Your task to perform on an android device: How much does a 3 bedroom apartment rent for in Dallas? Image 0: 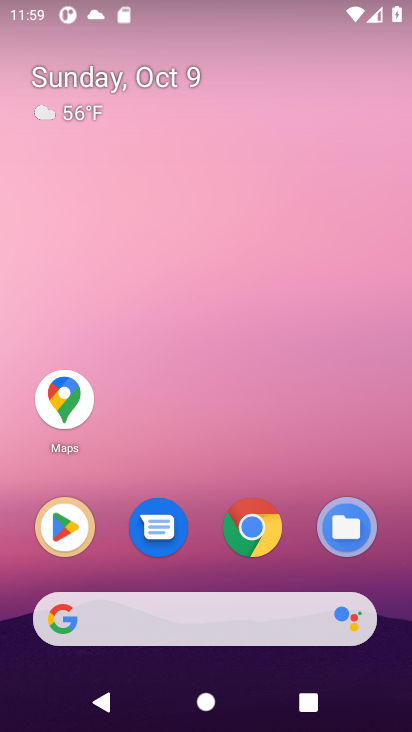
Step 0: click (261, 527)
Your task to perform on an android device: How much does a 3 bedroom apartment rent for in Dallas? Image 1: 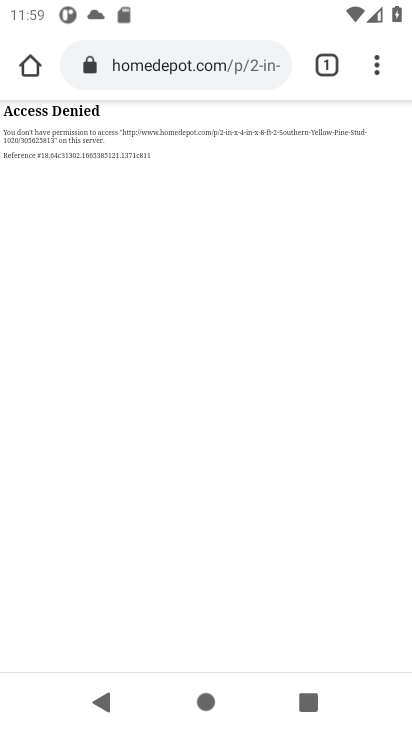
Step 1: click (166, 40)
Your task to perform on an android device: How much does a 3 bedroom apartment rent for in Dallas? Image 2: 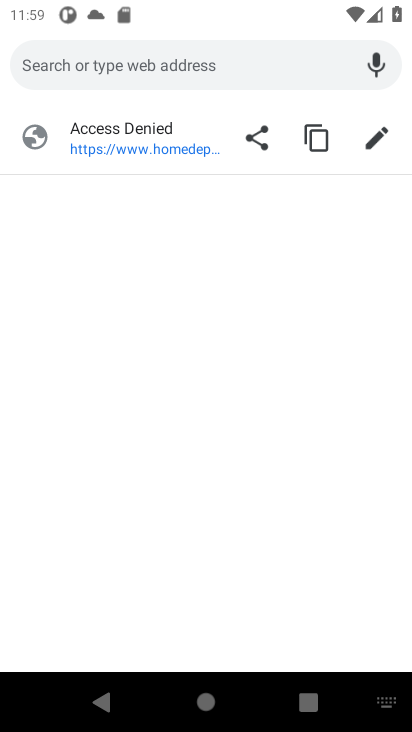
Step 2: click (240, 71)
Your task to perform on an android device: How much does a 3 bedroom apartment rent for in Dallas? Image 3: 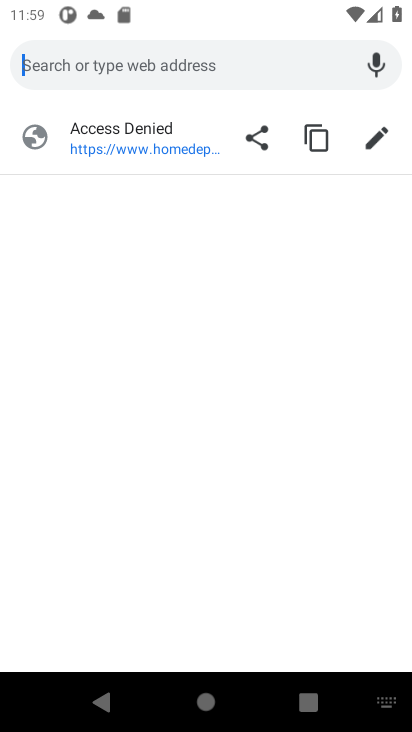
Step 3: type "How much does a 3 bedroom apartment rent for in Dallas?"
Your task to perform on an android device: How much does a 3 bedroom apartment rent for in Dallas? Image 4: 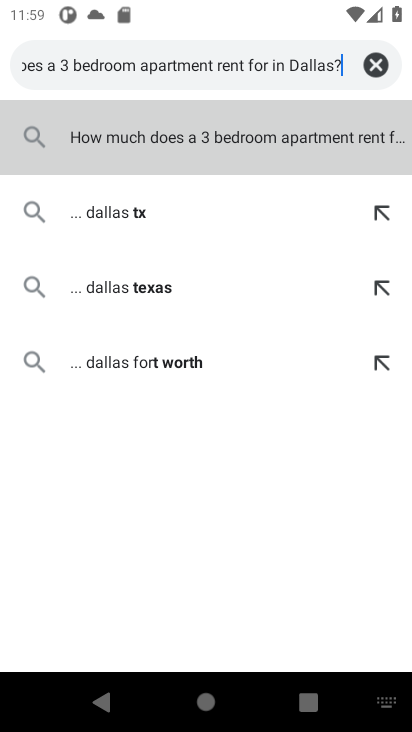
Step 4: click (107, 136)
Your task to perform on an android device: How much does a 3 bedroom apartment rent for in Dallas? Image 5: 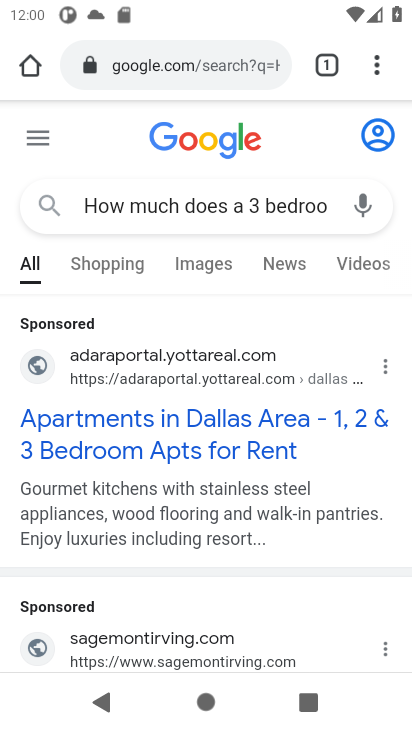
Step 5: drag from (133, 526) to (138, 299)
Your task to perform on an android device: How much does a 3 bedroom apartment rent for in Dallas? Image 6: 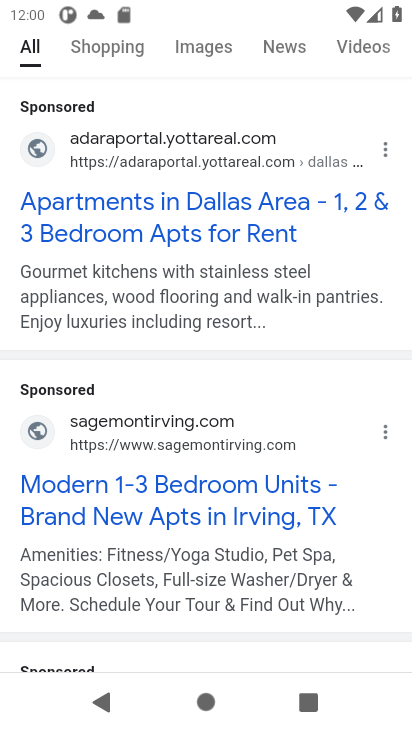
Step 6: drag from (129, 492) to (112, 203)
Your task to perform on an android device: How much does a 3 bedroom apartment rent for in Dallas? Image 7: 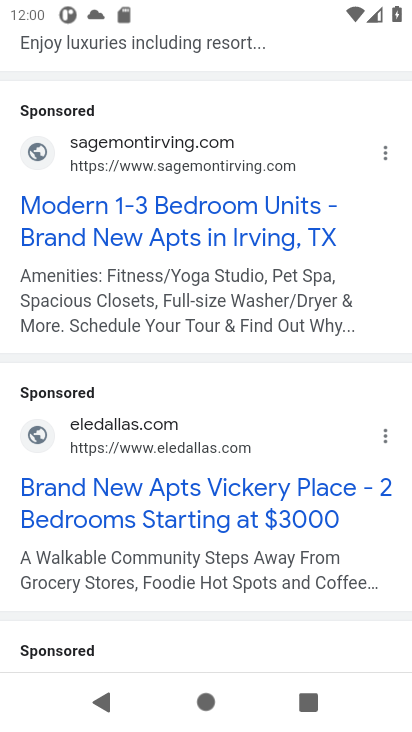
Step 7: click (83, 526)
Your task to perform on an android device: How much does a 3 bedroom apartment rent for in Dallas? Image 8: 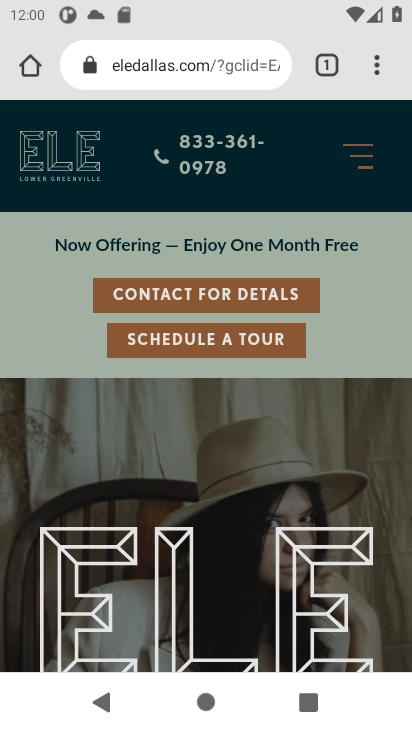
Step 8: drag from (213, 482) to (220, 216)
Your task to perform on an android device: How much does a 3 bedroom apartment rent for in Dallas? Image 9: 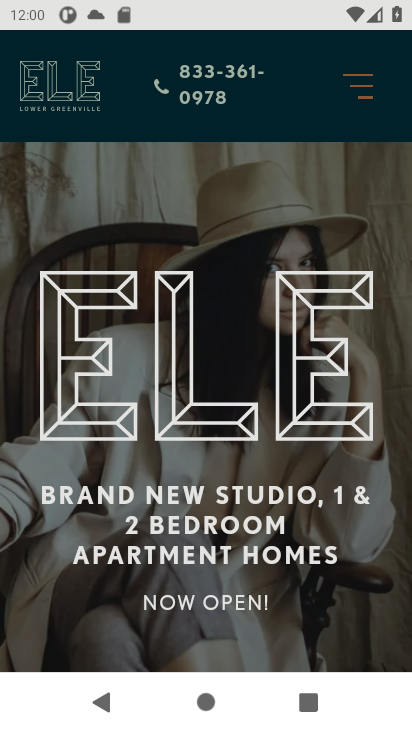
Step 9: drag from (250, 526) to (224, 215)
Your task to perform on an android device: How much does a 3 bedroom apartment rent for in Dallas? Image 10: 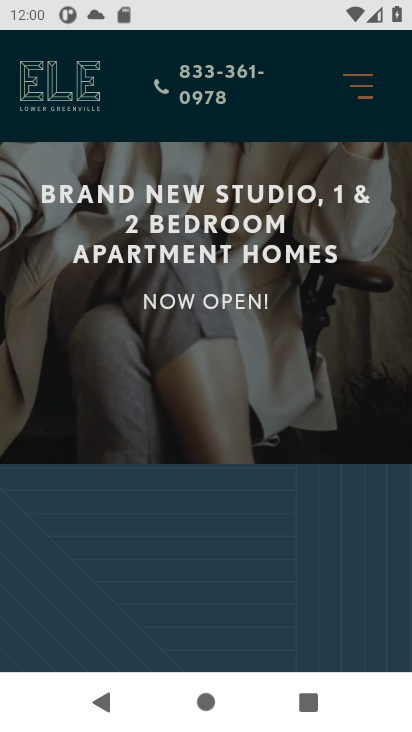
Step 10: drag from (205, 530) to (192, 264)
Your task to perform on an android device: How much does a 3 bedroom apartment rent for in Dallas? Image 11: 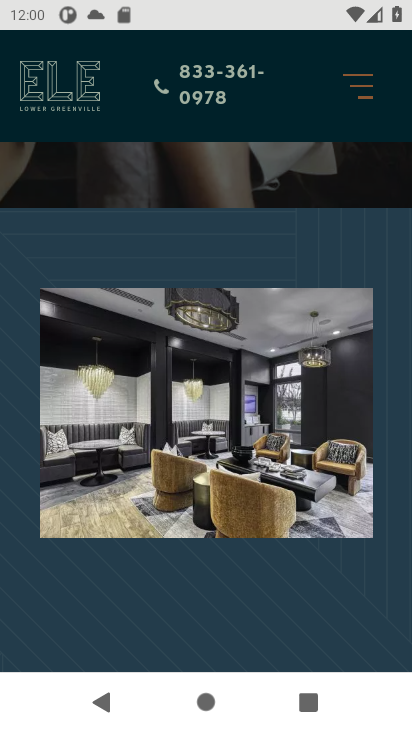
Step 11: drag from (188, 456) to (188, 203)
Your task to perform on an android device: How much does a 3 bedroom apartment rent for in Dallas? Image 12: 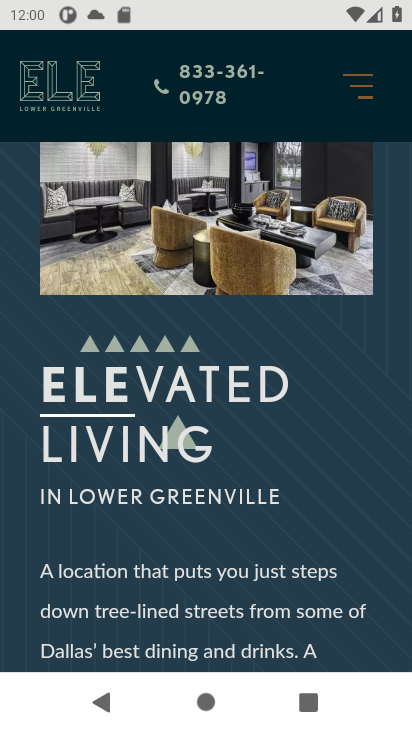
Step 12: drag from (238, 530) to (254, 270)
Your task to perform on an android device: How much does a 3 bedroom apartment rent for in Dallas? Image 13: 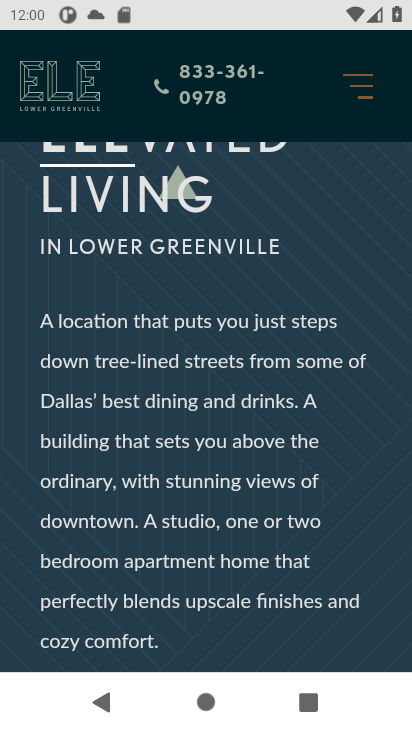
Step 13: press back button
Your task to perform on an android device: How much does a 3 bedroom apartment rent for in Dallas? Image 14: 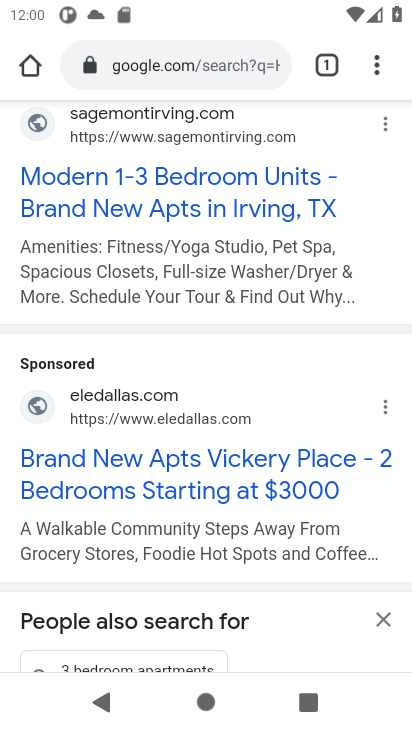
Step 14: drag from (194, 359) to (192, 567)
Your task to perform on an android device: How much does a 3 bedroom apartment rent for in Dallas? Image 15: 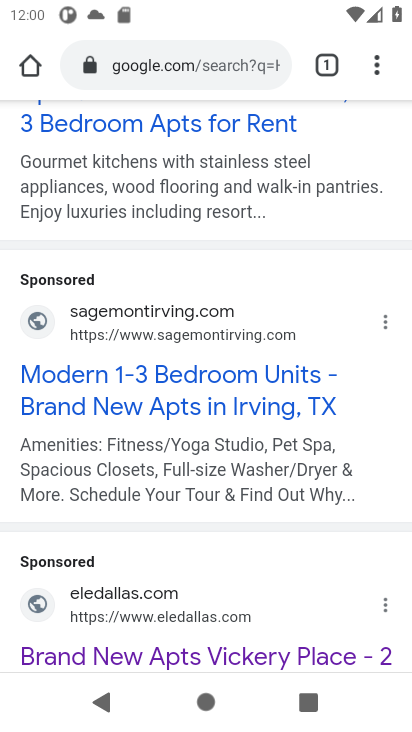
Step 15: click (156, 392)
Your task to perform on an android device: How much does a 3 bedroom apartment rent for in Dallas? Image 16: 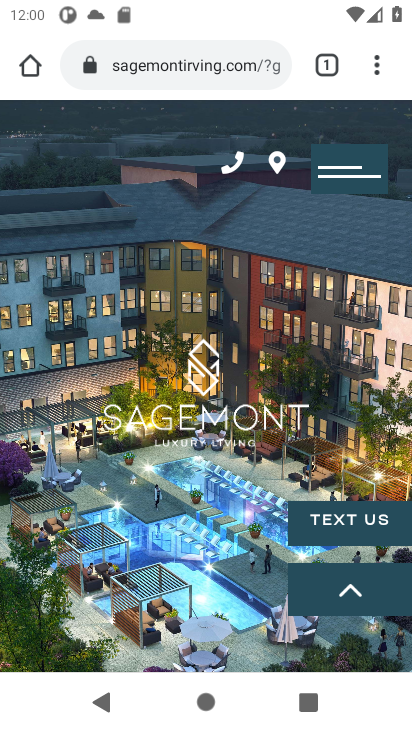
Step 16: drag from (178, 502) to (176, 288)
Your task to perform on an android device: How much does a 3 bedroom apartment rent for in Dallas? Image 17: 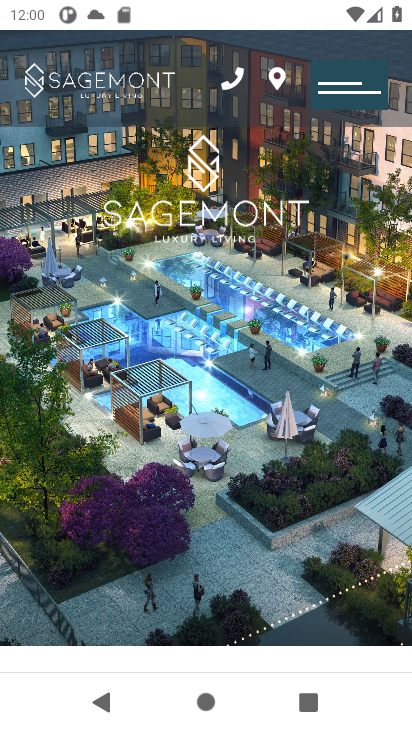
Step 17: drag from (247, 542) to (255, 225)
Your task to perform on an android device: How much does a 3 bedroom apartment rent for in Dallas? Image 18: 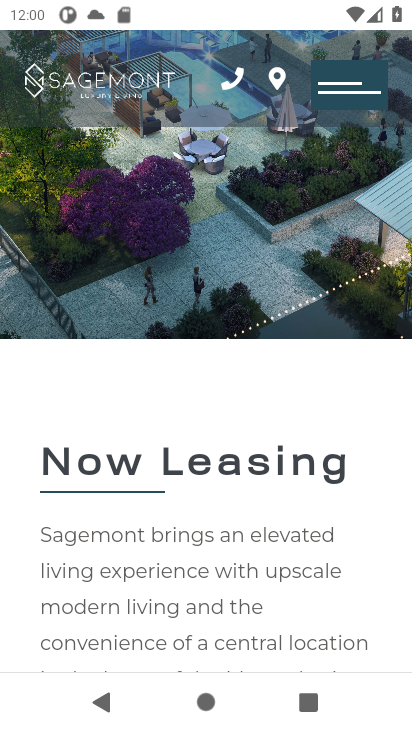
Step 18: drag from (281, 481) to (273, 176)
Your task to perform on an android device: How much does a 3 bedroom apartment rent for in Dallas? Image 19: 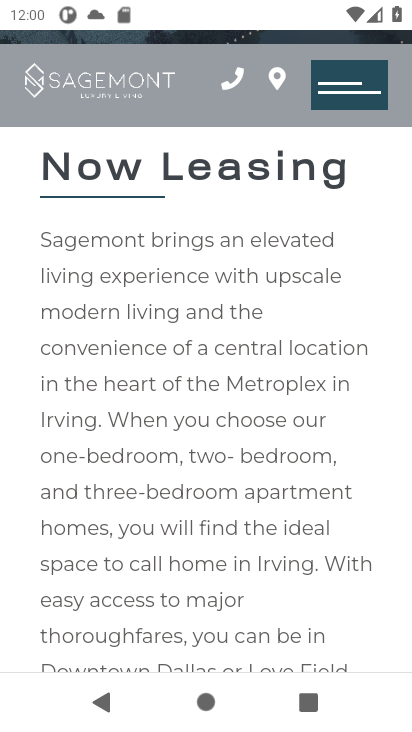
Step 19: press back button
Your task to perform on an android device: How much does a 3 bedroom apartment rent for in Dallas? Image 20: 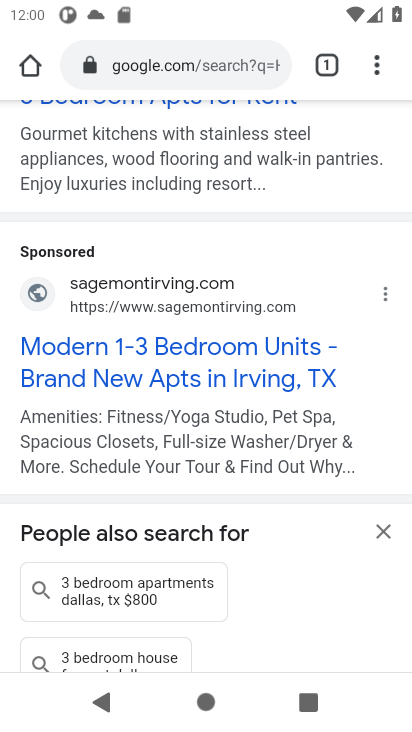
Step 20: drag from (198, 274) to (188, 527)
Your task to perform on an android device: How much does a 3 bedroom apartment rent for in Dallas? Image 21: 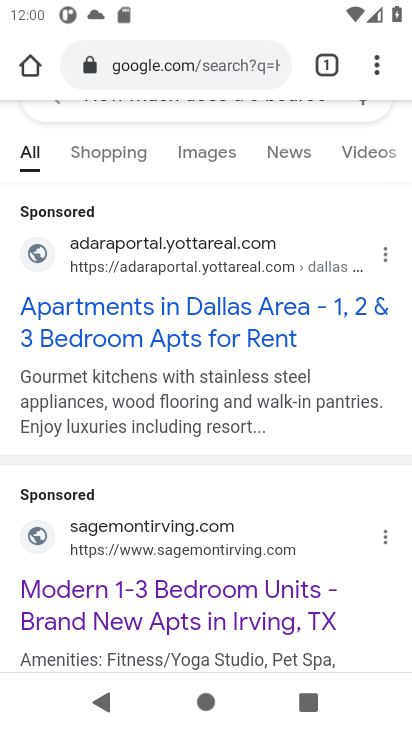
Step 21: click (151, 352)
Your task to perform on an android device: How much does a 3 bedroom apartment rent for in Dallas? Image 22: 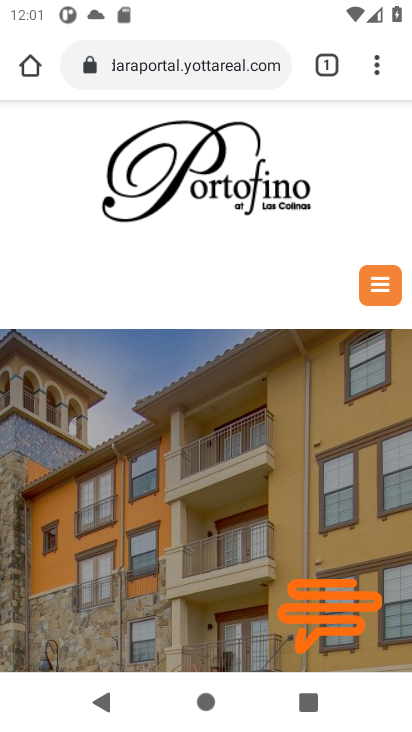
Step 22: drag from (169, 478) to (178, 172)
Your task to perform on an android device: How much does a 3 bedroom apartment rent for in Dallas? Image 23: 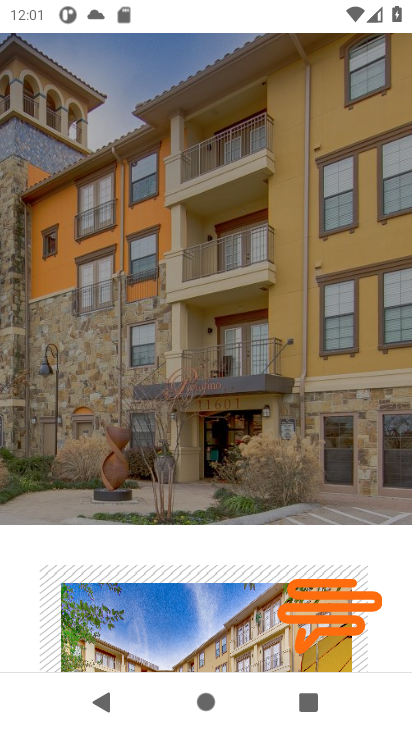
Step 23: drag from (185, 474) to (190, 163)
Your task to perform on an android device: How much does a 3 bedroom apartment rent for in Dallas? Image 24: 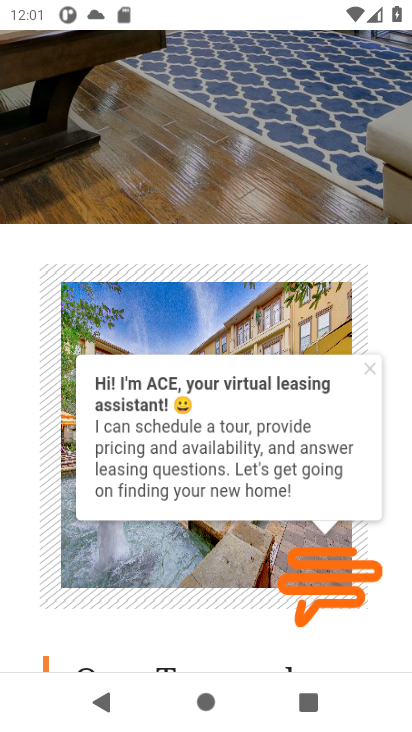
Step 24: drag from (14, 509) to (95, 219)
Your task to perform on an android device: How much does a 3 bedroom apartment rent for in Dallas? Image 25: 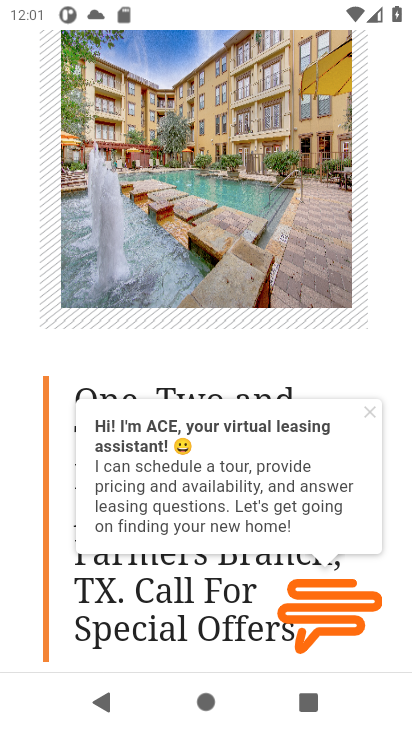
Step 25: click (375, 403)
Your task to perform on an android device: How much does a 3 bedroom apartment rent for in Dallas? Image 26: 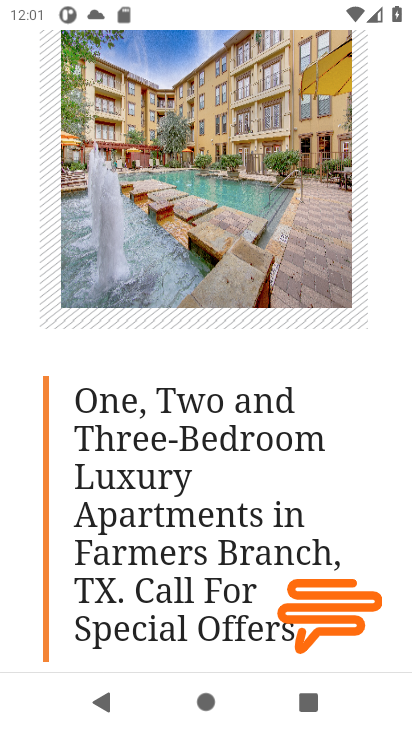
Step 26: drag from (211, 458) to (248, 70)
Your task to perform on an android device: How much does a 3 bedroom apartment rent for in Dallas? Image 27: 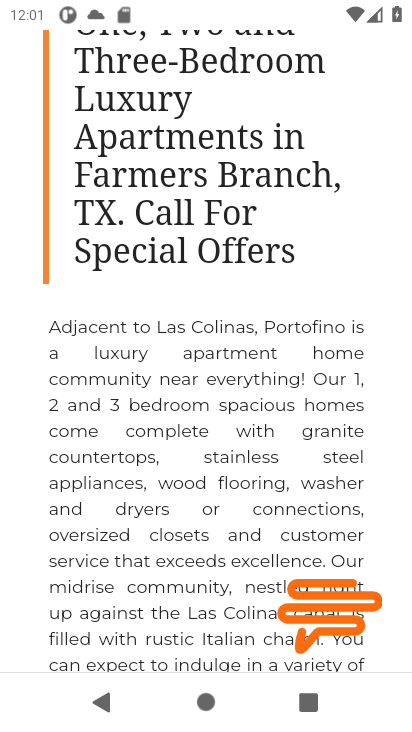
Step 27: drag from (184, 504) to (205, 124)
Your task to perform on an android device: How much does a 3 bedroom apartment rent for in Dallas? Image 28: 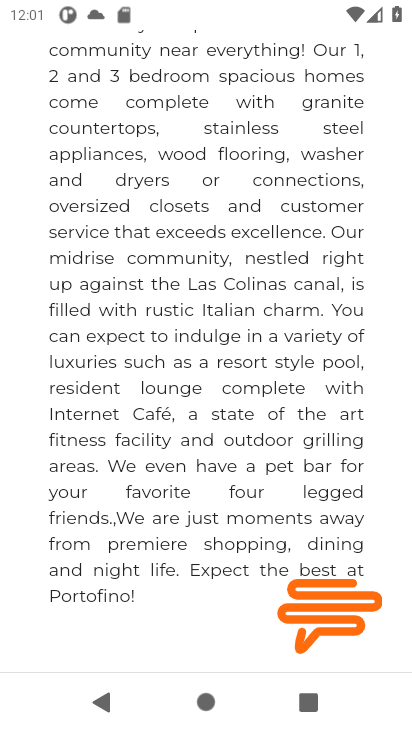
Step 28: drag from (163, 513) to (193, 217)
Your task to perform on an android device: How much does a 3 bedroom apartment rent for in Dallas? Image 29: 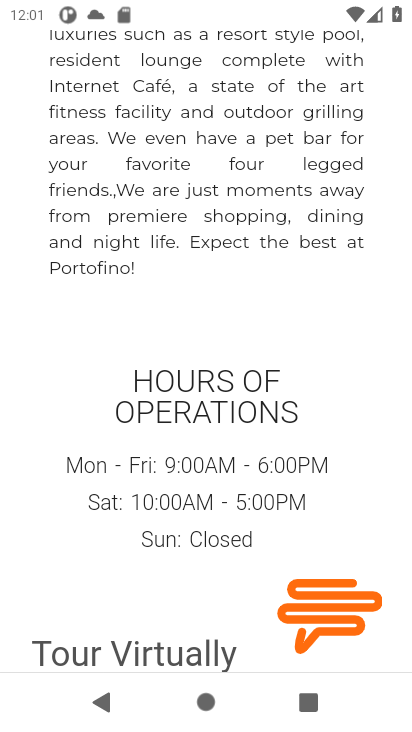
Step 29: press back button
Your task to perform on an android device: How much does a 3 bedroom apartment rent for in Dallas? Image 30: 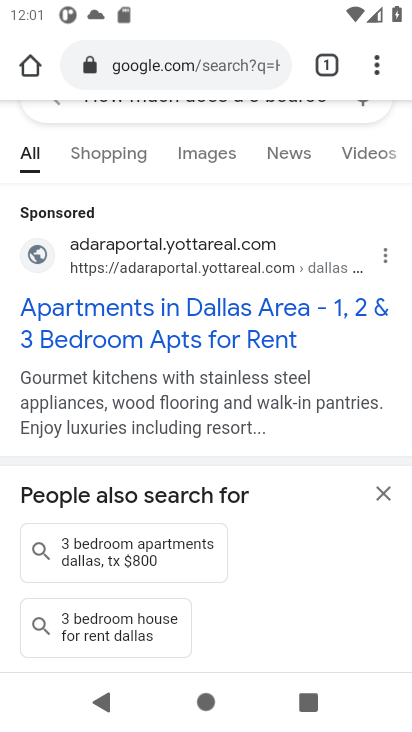
Step 30: click (377, 501)
Your task to perform on an android device: How much does a 3 bedroom apartment rent for in Dallas? Image 31: 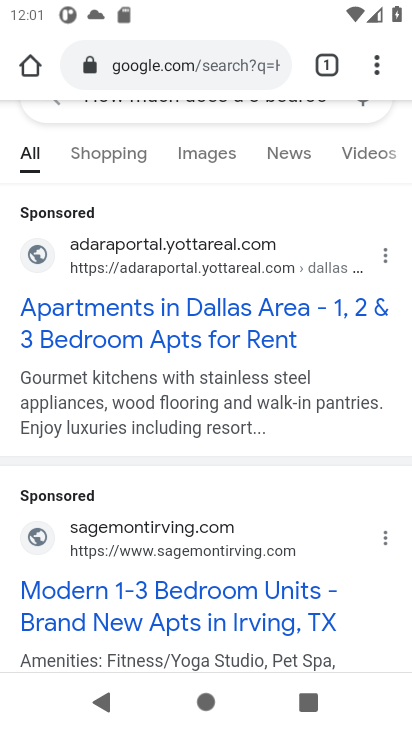
Step 31: drag from (155, 594) to (216, 227)
Your task to perform on an android device: How much does a 3 bedroom apartment rent for in Dallas? Image 32: 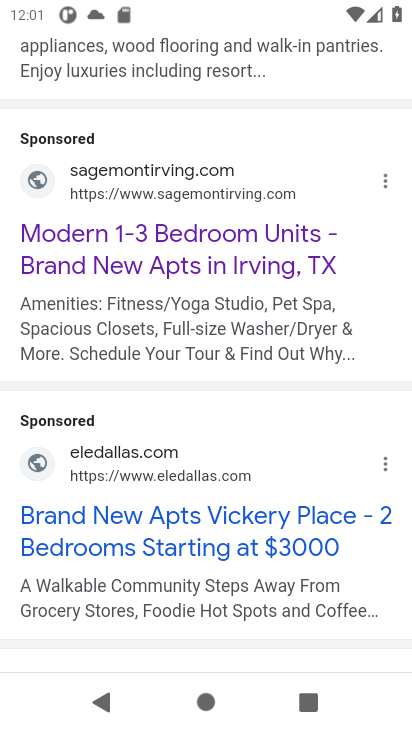
Step 32: drag from (178, 530) to (204, 202)
Your task to perform on an android device: How much does a 3 bedroom apartment rent for in Dallas? Image 33: 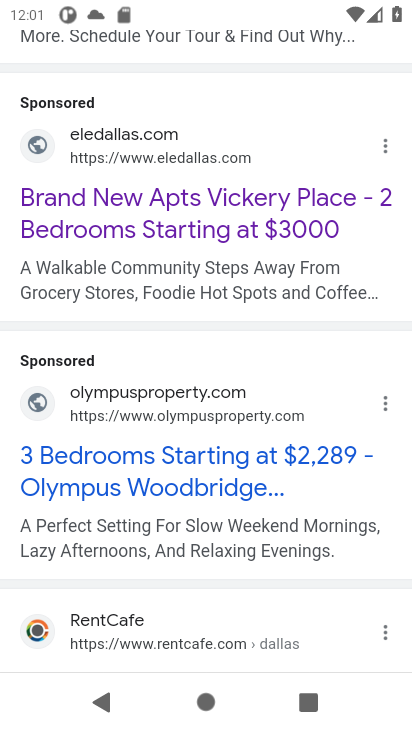
Step 33: click (177, 480)
Your task to perform on an android device: How much does a 3 bedroom apartment rent for in Dallas? Image 34: 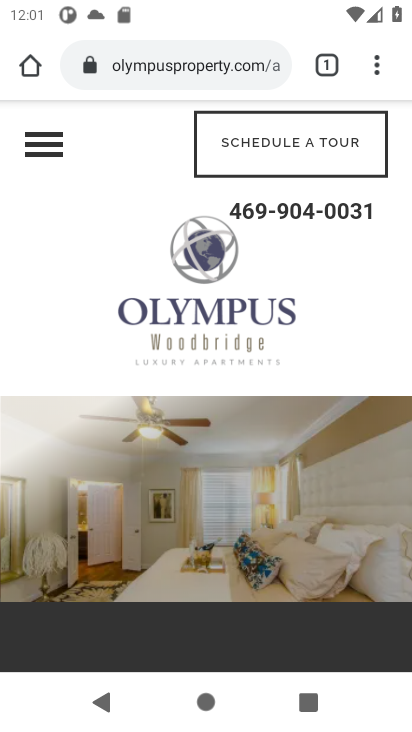
Step 34: task complete